Your task to perform on an android device: Show me productivity apps on the Play Store Image 0: 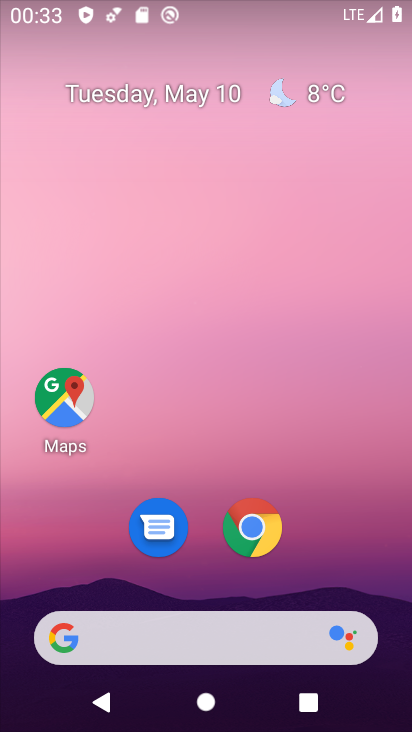
Step 0: drag from (326, 478) to (219, 179)
Your task to perform on an android device: Show me productivity apps on the Play Store Image 1: 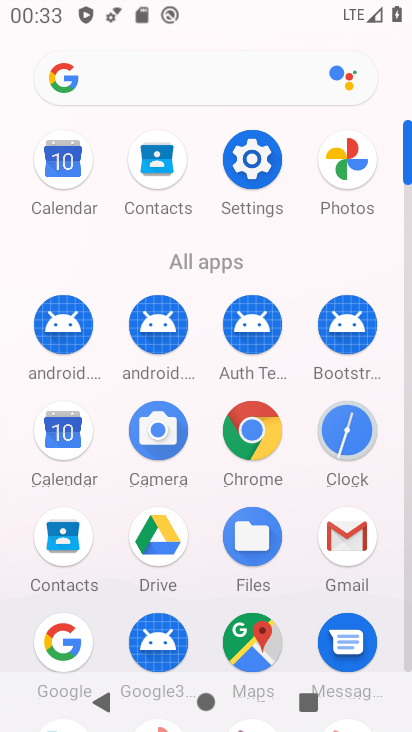
Step 1: drag from (204, 588) to (202, 214)
Your task to perform on an android device: Show me productivity apps on the Play Store Image 2: 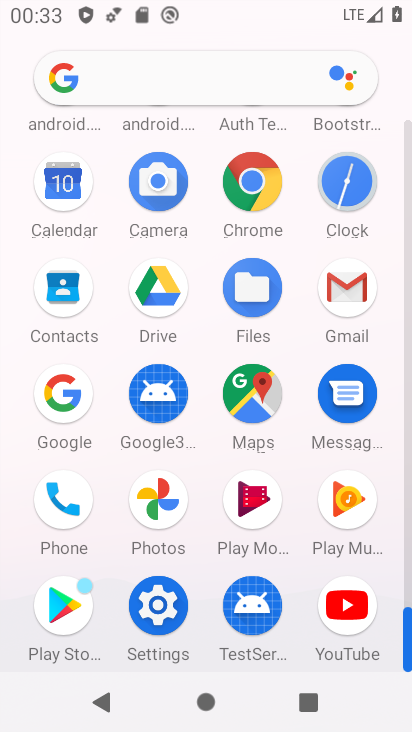
Step 2: click (64, 627)
Your task to perform on an android device: Show me productivity apps on the Play Store Image 3: 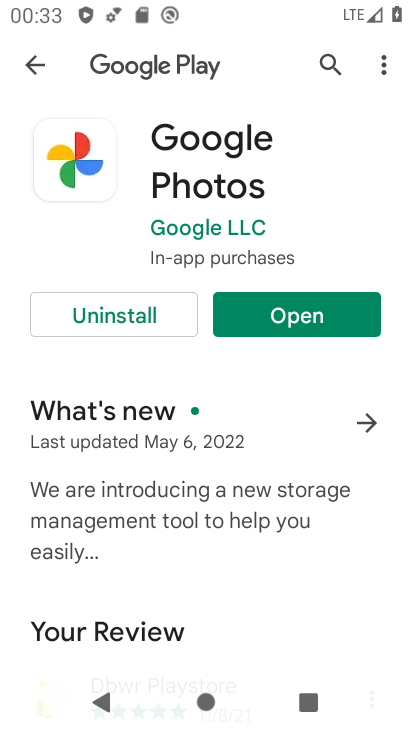
Step 3: press back button
Your task to perform on an android device: Show me productivity apps on the Play Store Image 4: 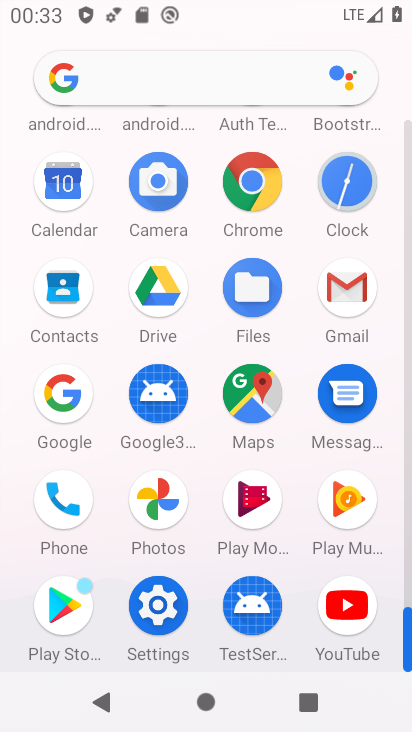
Step 4: click (62, 608)
Your task to perform on an android device: Show me productivity apps on the Play Store Image 5: 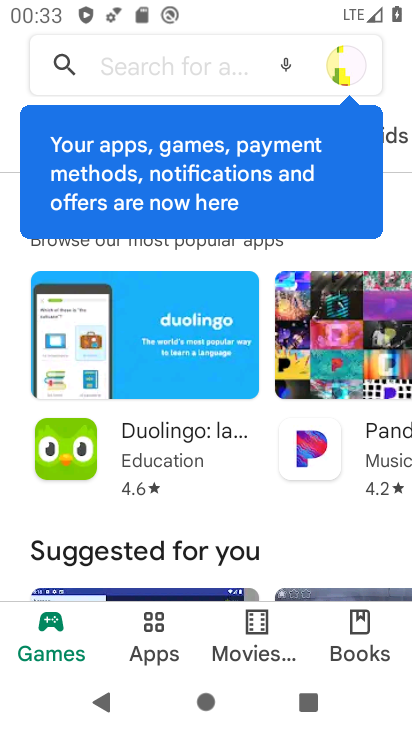
Step 5: click (147, 623)
Your task to perform on an android device: Show me productivity apps on the Play Store Image 6: 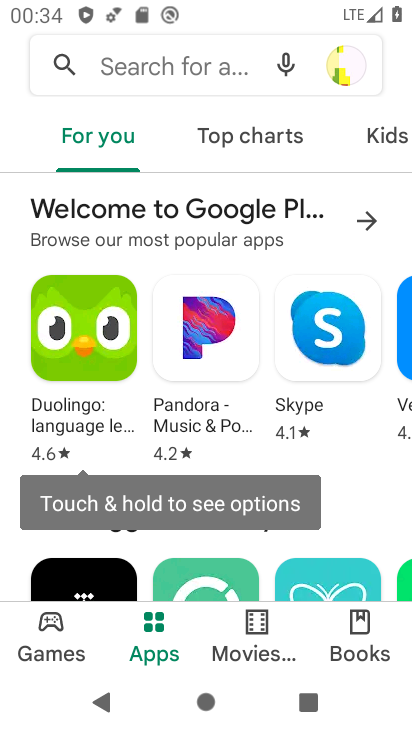
Step 6: drag from (398, 139) to (0, 146)
Your task to perform on an android device: Show me productivity apps on the Play Store Image 7: 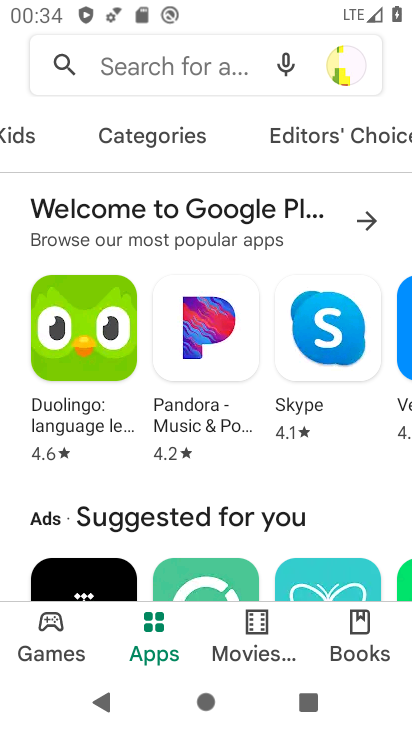
Step 7: click (154, 142)
Your task to perform on an android device: Show me productivity apps on the Play Store Image 8: 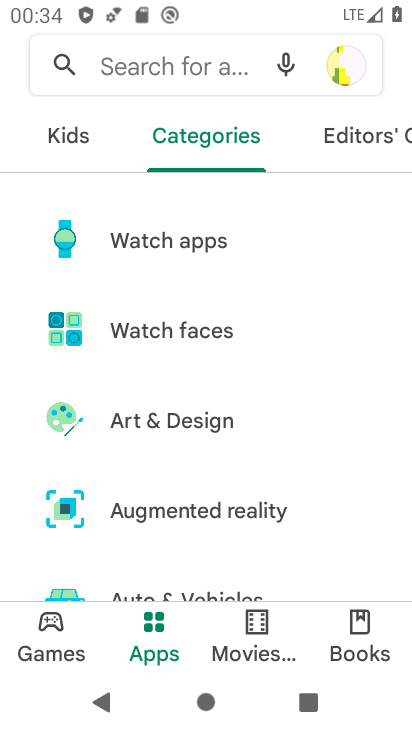
Step 8: drag from (161, 547) to (154, 150)
Your task to perform on an android device: Show me productivity apps on the Play Store Image 9: 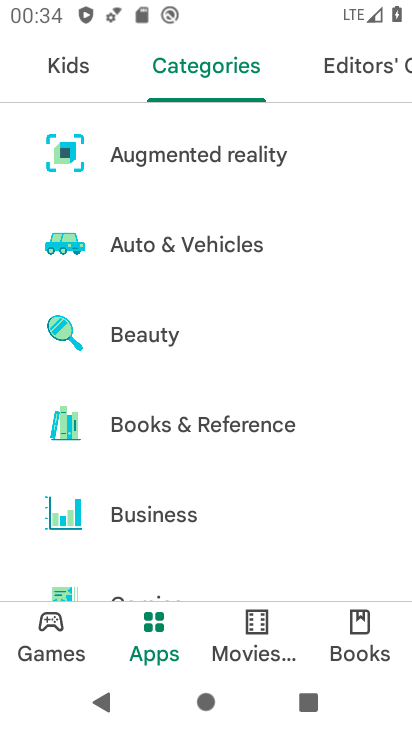
Step 9: drag from (162, 514) to (134, 179)
Your task to perform on an android device: Show me productivity apps on the Play Store Image 10: 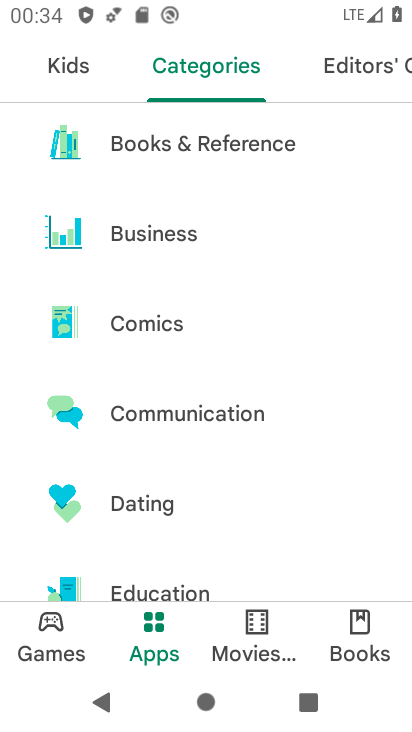
Step 10: drag from (149, 546) to (143, 141)
Your task to perform on an android device: Show me productivity apps on the Play Store Image 11: 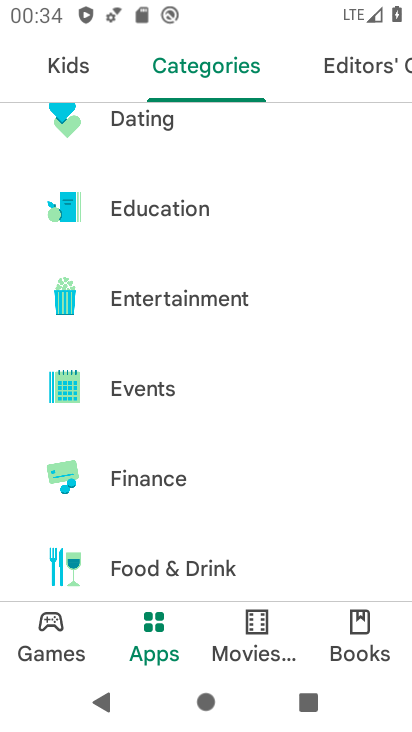
Step 11: drag from (146, 568) to (137, 158)
Your task to perform on an android device: Show me productivity apps on the Play Store Image 12: 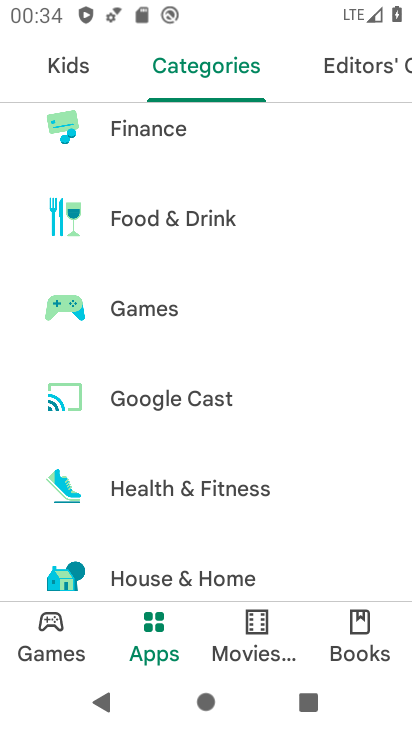
Step 12: drag from (190, 556) to (141, 134)
Your task to perform on an android device: Show me productivity apps on the Play Store Image 13: 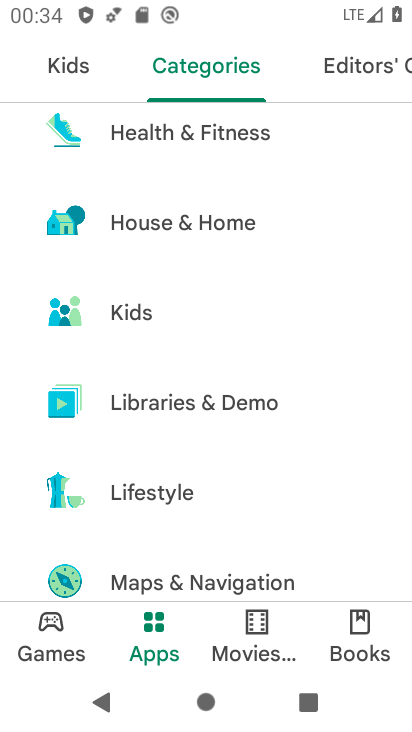
Step 13: drag from (174, 564) to (174, 174)
Your task to perform on an android device: Show me productivity apps on the Play Store Image 14: 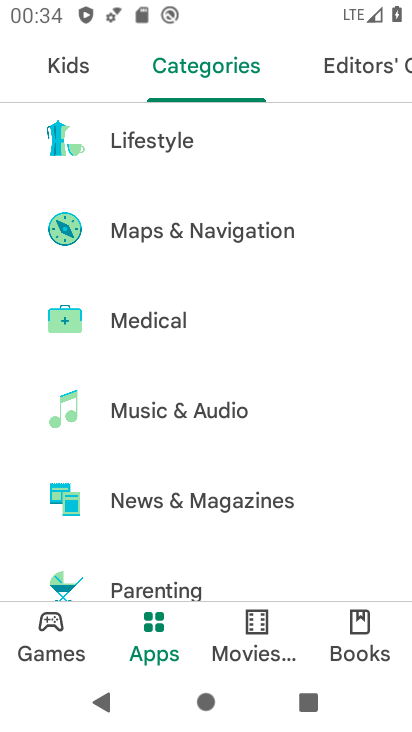
Step 14: drag from (169, 560) to (151, 174)
Your task to perform on an android device: Show me productivity apps on the Play Store Image 15: 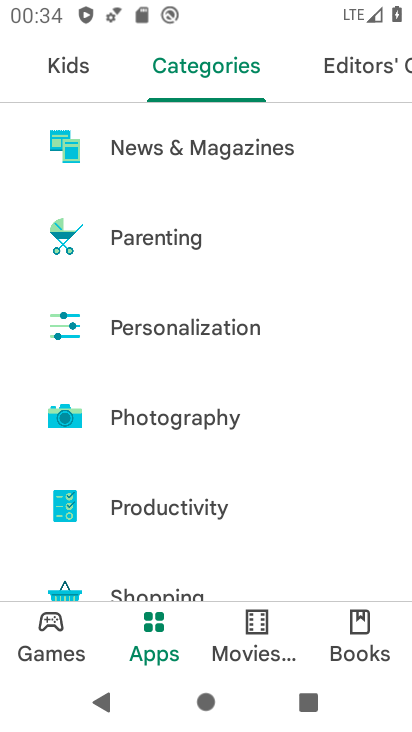
Step 15: click (151, 502)
Your task to perform on an android device: Show me productivity apps on the Play Store Image 16: 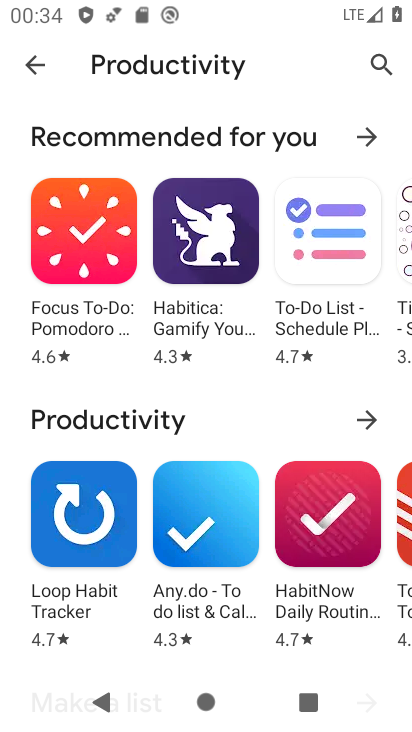
Step 16: task complete